Your task to perform on an android device: toggle sleep mode Image 0: 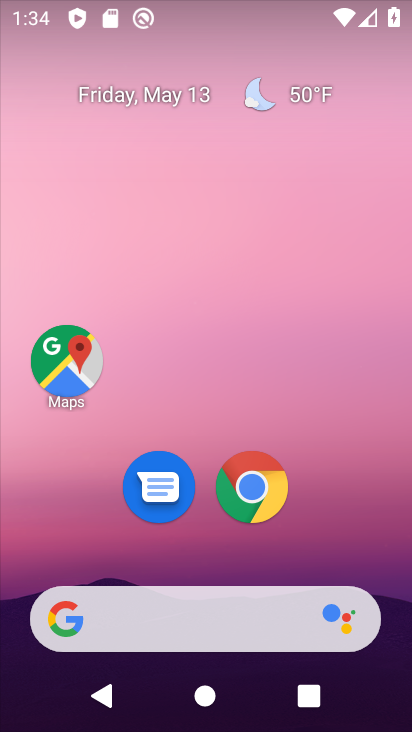
Step 0: drag from (134, 577) to (268, 186)
Your task to perform on an android device: toggle sleep mode Image 1: 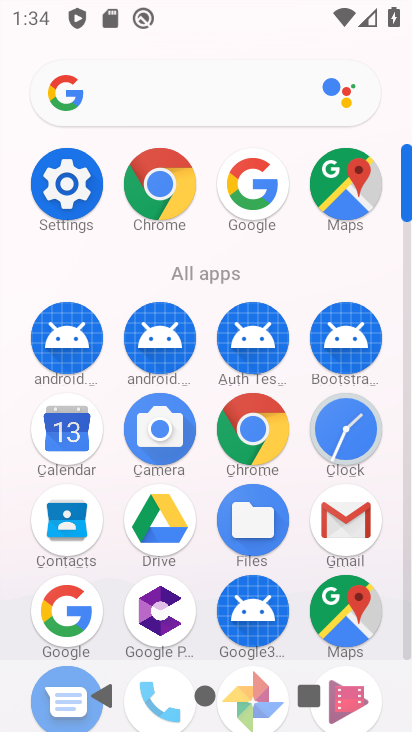
Step 1: drag from (181, 597) to (251, 325)
Your task to perform on an android device: toggle sleep mode Image 2: 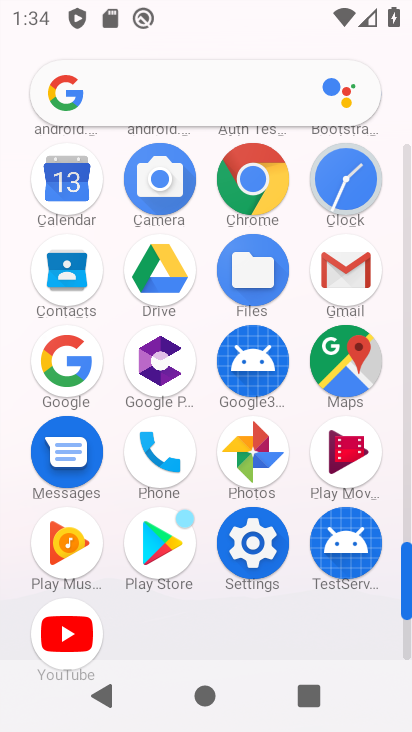
Step 2: click (250, 543)
Your task to perform on an android device: toggle sleep mode Image 3: 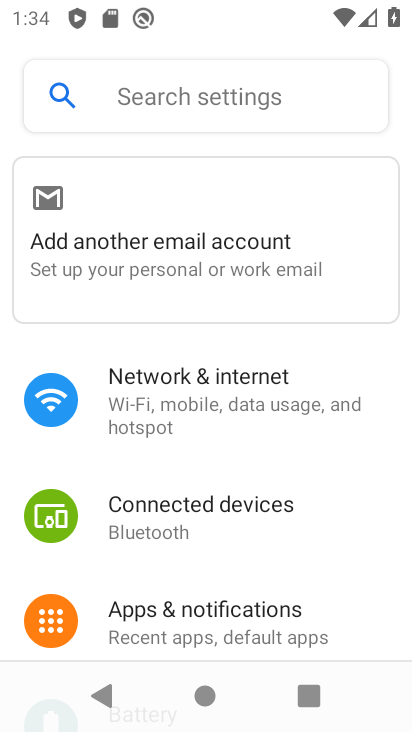
Step 3: drag from (158, 628) to (254, 371)
Your task to perform on an android device: toggle sleep mode Image 4: 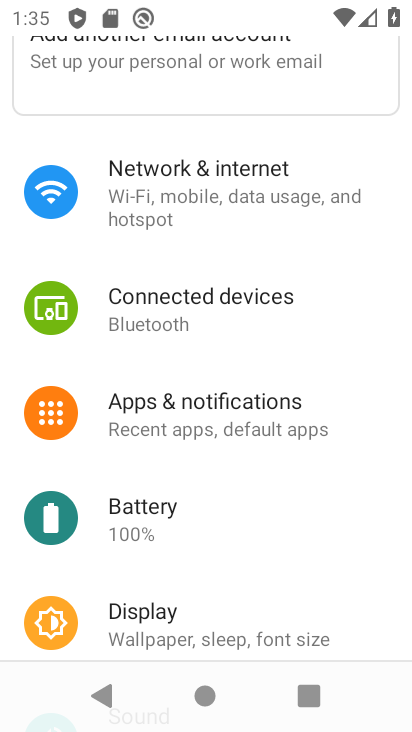
Step 4: click (175, 624)
Your task to perform on an android device: toggle sleep mode Image 5: 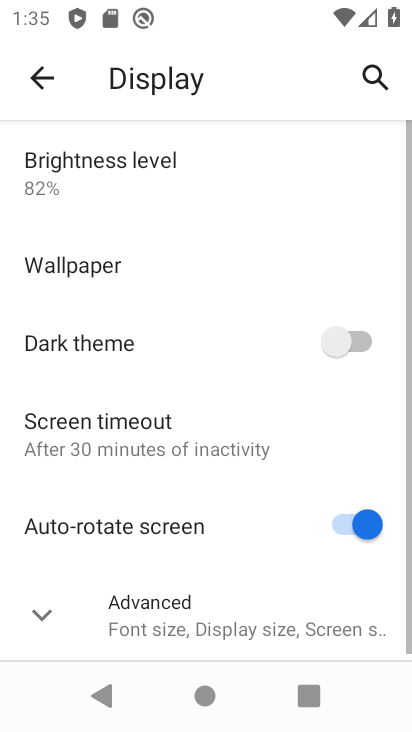
Step 5: click (175, 624)
Your task to perform on an android device: toggle sleep mode Image 6: 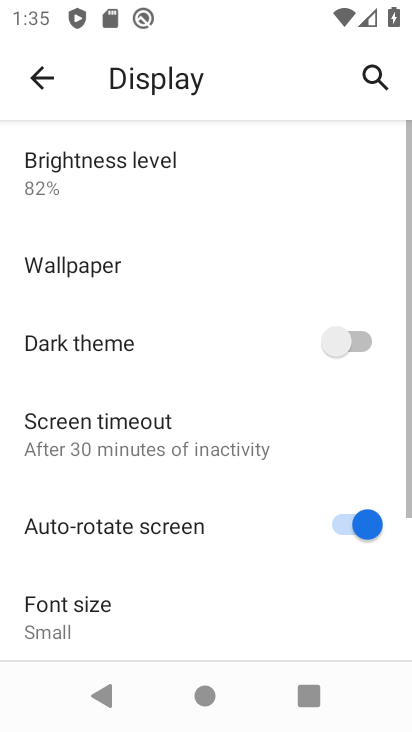
Step 6: task complete